Your task to perform on an android device: Go to ESPN.com Image 0: 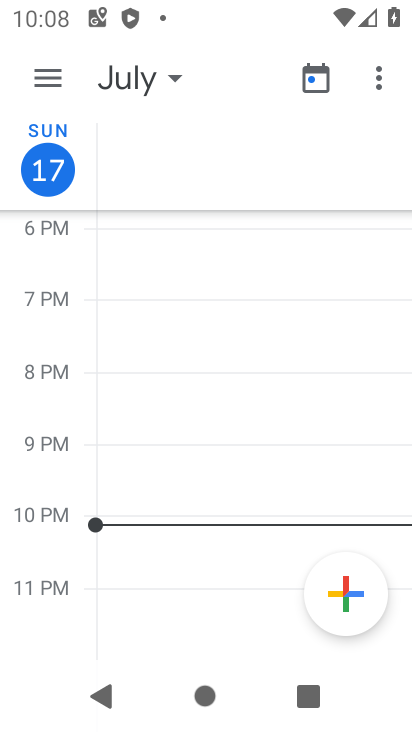
Step 0: press back button
Your task to perform on an android device: Go to ESPN.com Image 1: 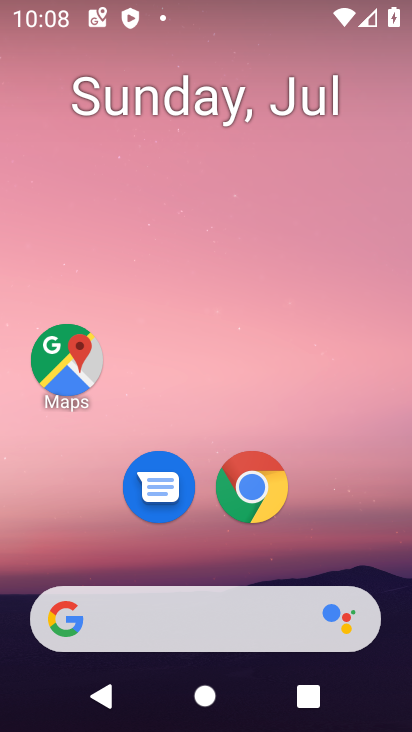
Step 1: click (273, 493)
Your task to perform on an android device: Go to ESPN.com Image 2: 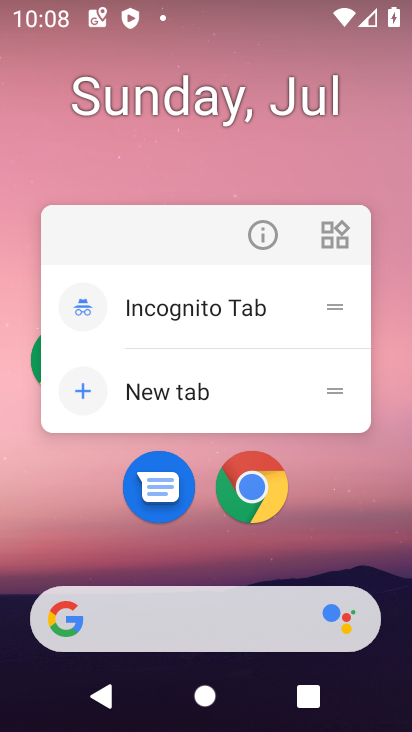
Step 2: click (257, 472)
Your task to perform on an android device: Go to ESPN.com Image 3: 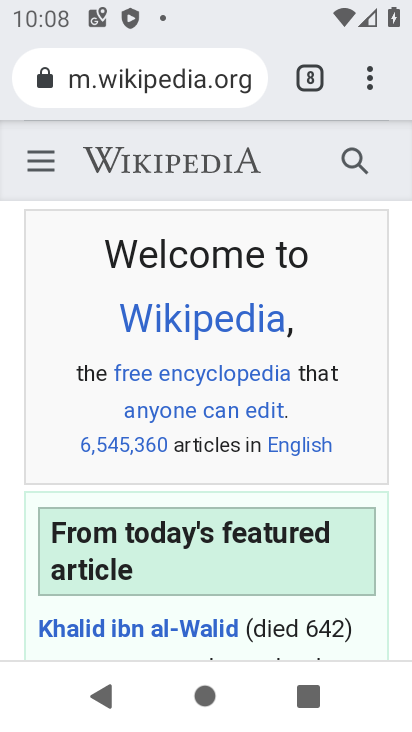
Step 3: click (308, 69)
Your task to perform on an android device: Go to ESPN.com Image 4: 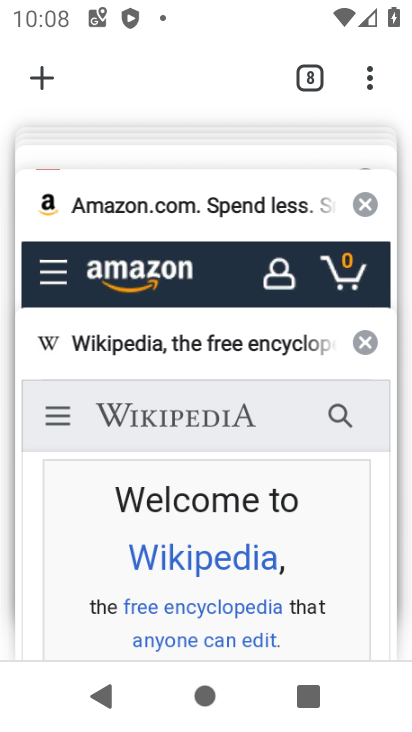
Step 4: click (35, 62)
Your task to perform on an android device: Go to ESPN.com Image 5: 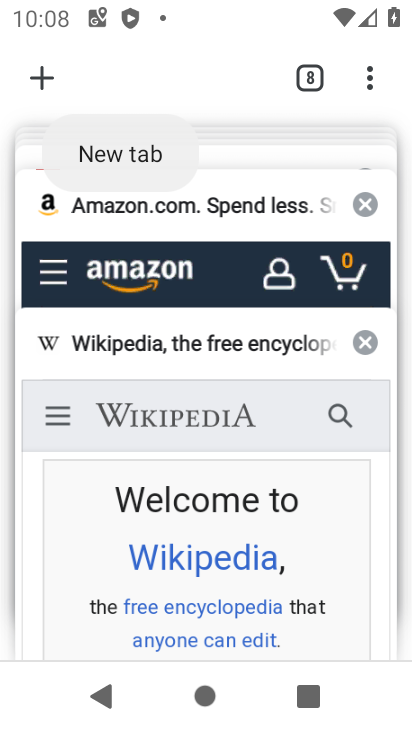
Step 5: click (40, 75)
Your task to perform on an android device: Go to ESPN.com Image 6: 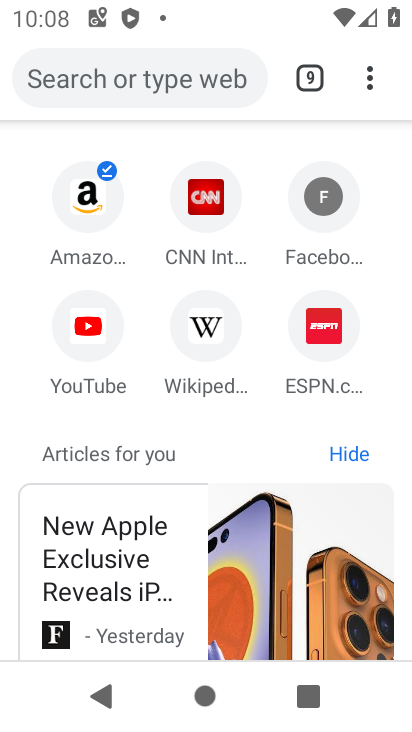
Step 6: click (310, 324)
Your task to perform on an android device: Go to ESPN.com Image 7: 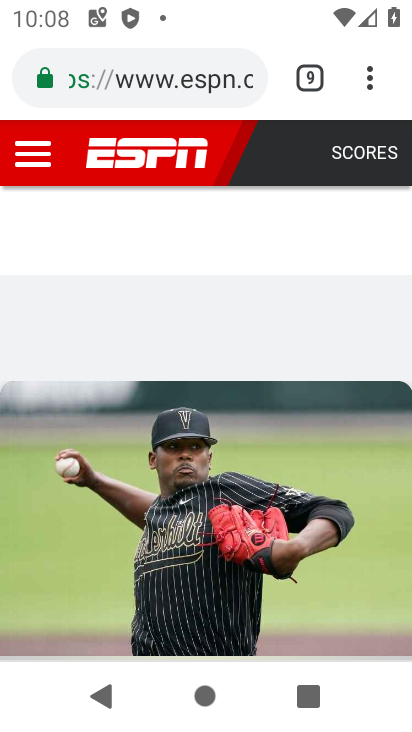
Step 7: task complete